Your task to perform on an android device: Open the map Image 0: 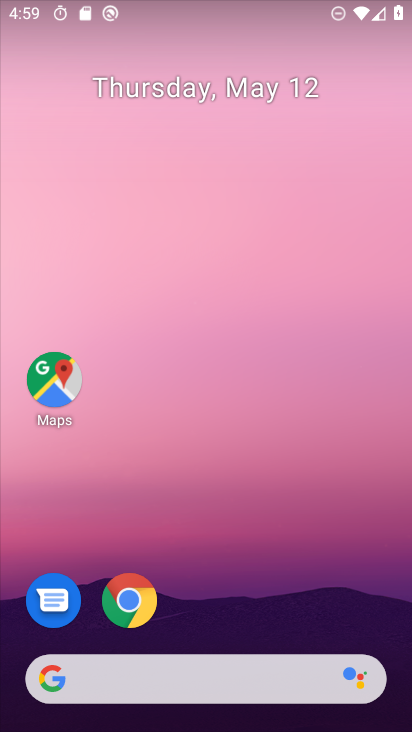
Step 0: drag from (199, 610) to (249, 255)
Your task to perform on an android device: Open the map Image 1: 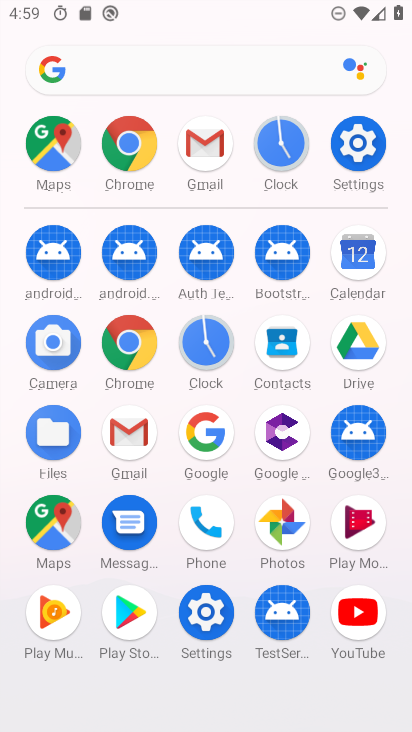
Step 1: click (64, 520)
Your task to perform on an android device: Open the map Image 2: 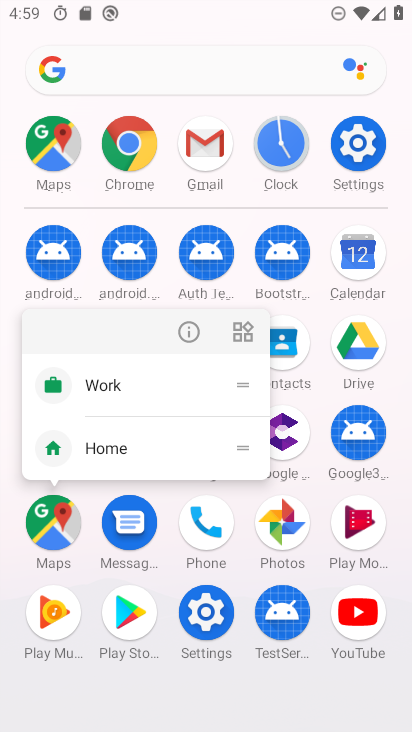
Step 2: click (187, 315)
Your task to perform on an android device: Open the map Image 3: 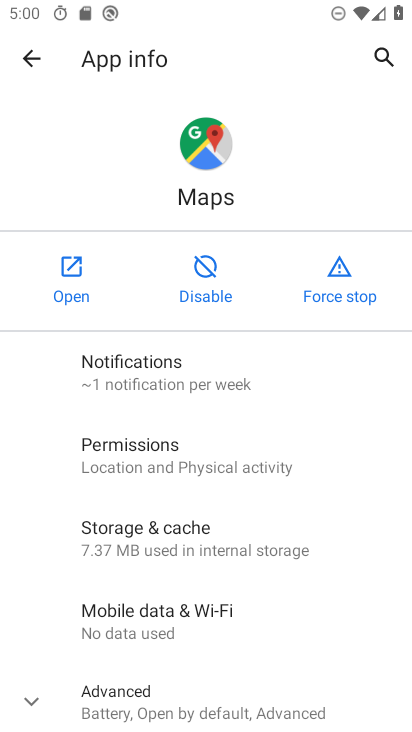
Step 3: click (84, 250)
Your task to perform on an android device: Open the map Image 4: 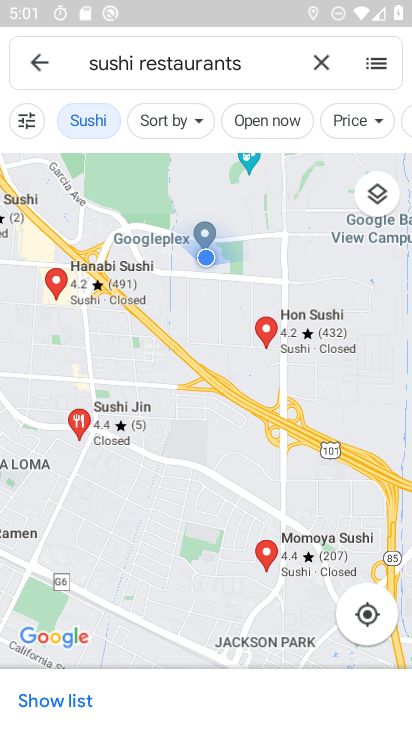
Step 4: task complete